Your task to perform on an android device: Go to Google maps Image 0: 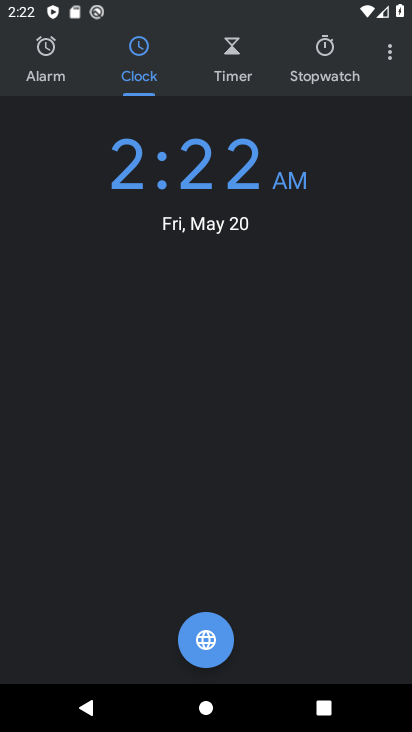
Step 0: press home button
Your task to perform on an android device: Go to Google maps Image 1: 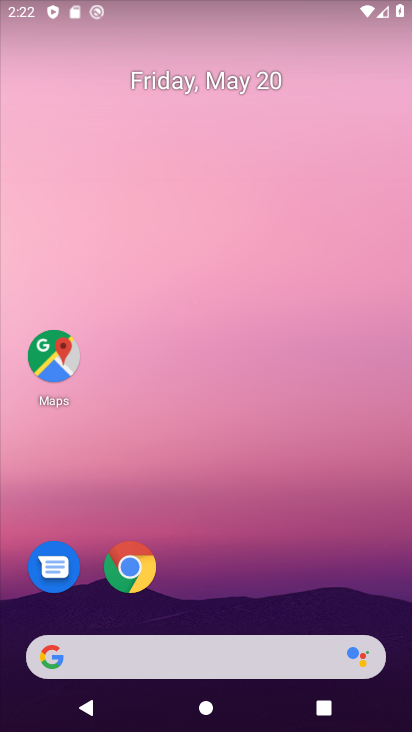
Step 1: click (60, 352)
Your task to perform on an android device: Go to Google maps Image 2: 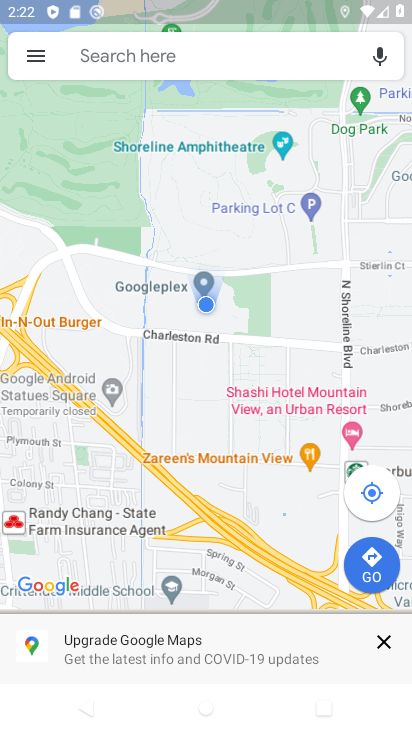
Step 2: task complete